Your task to perform on an android device: Go to internet settings Image 0: 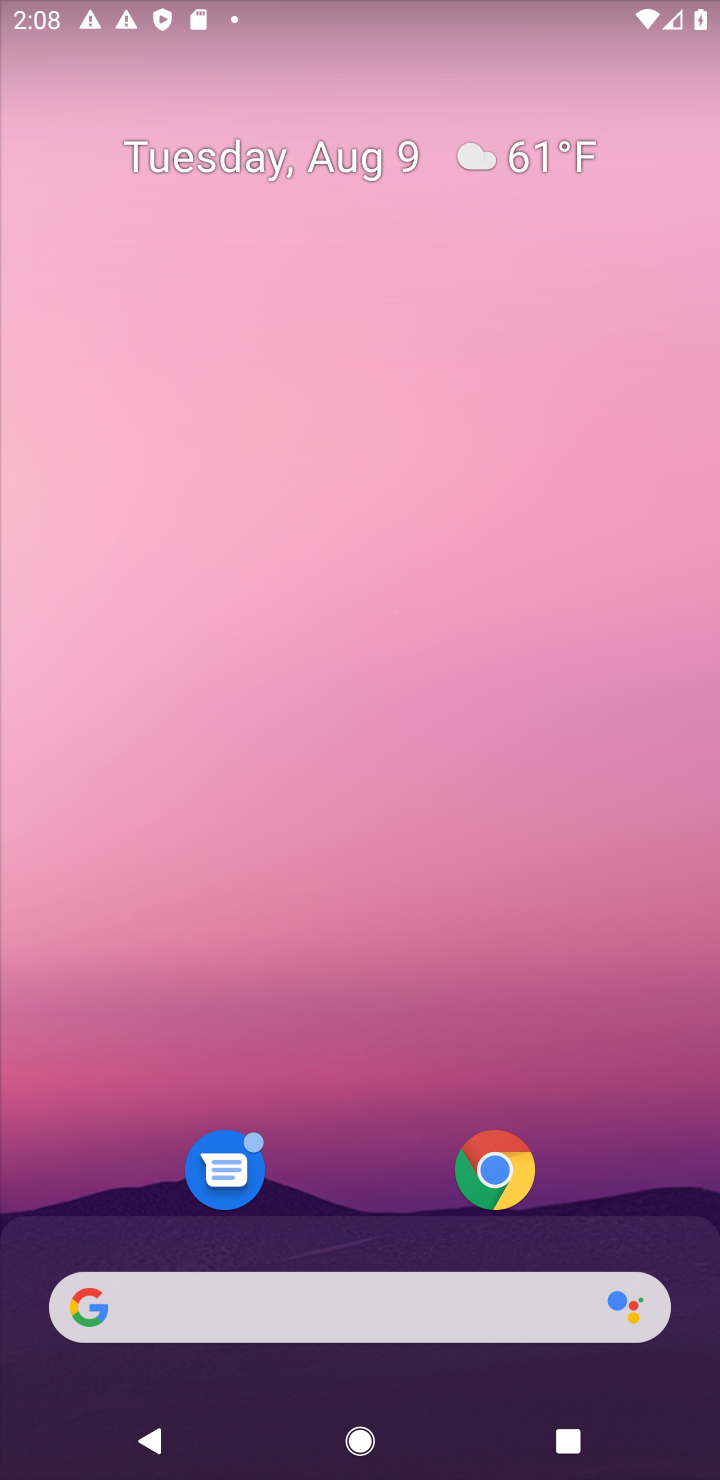
Step 0: drag from (387, 1082) to (485, 134)
Your task to perform on an android device: Go to internet settings Image 1: 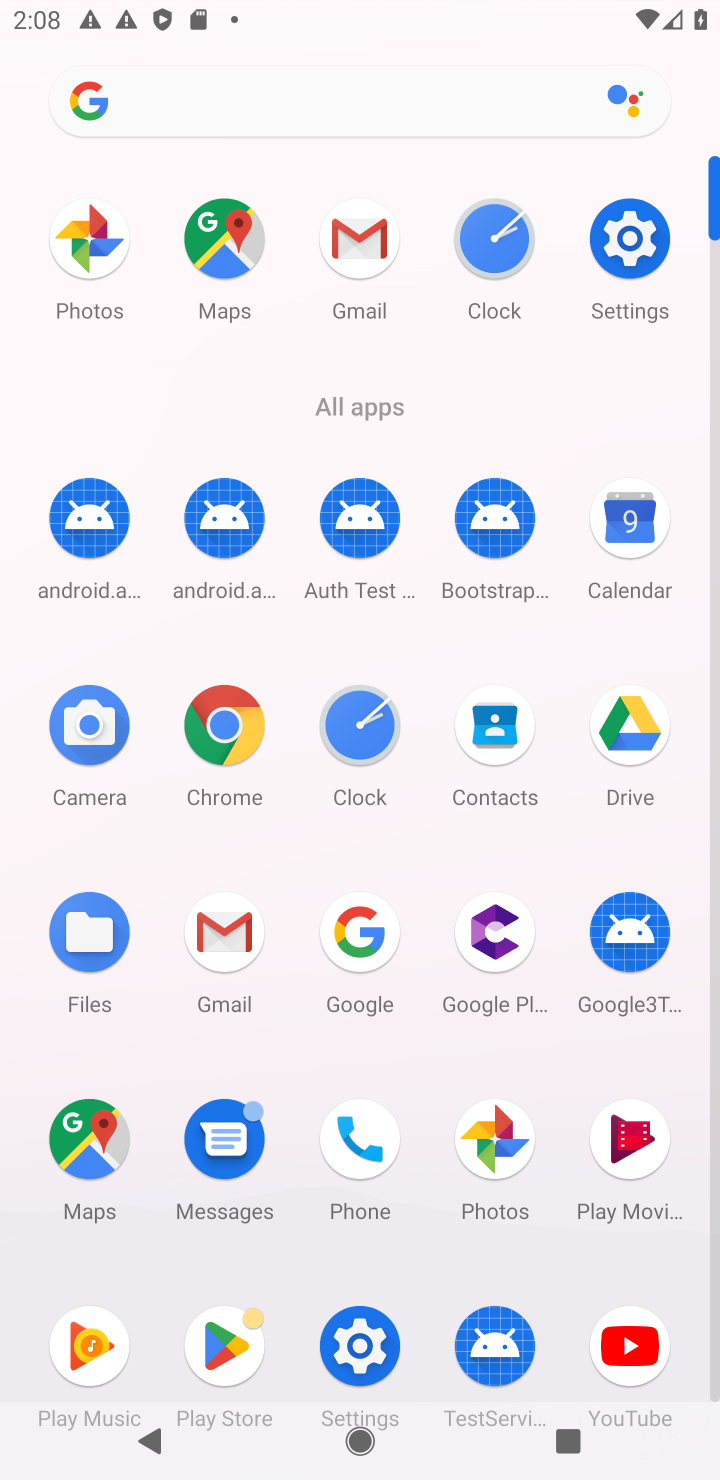
Step 1: click (371, 1334)
Your task to perform on an android device: Go to internet settings Image 2: 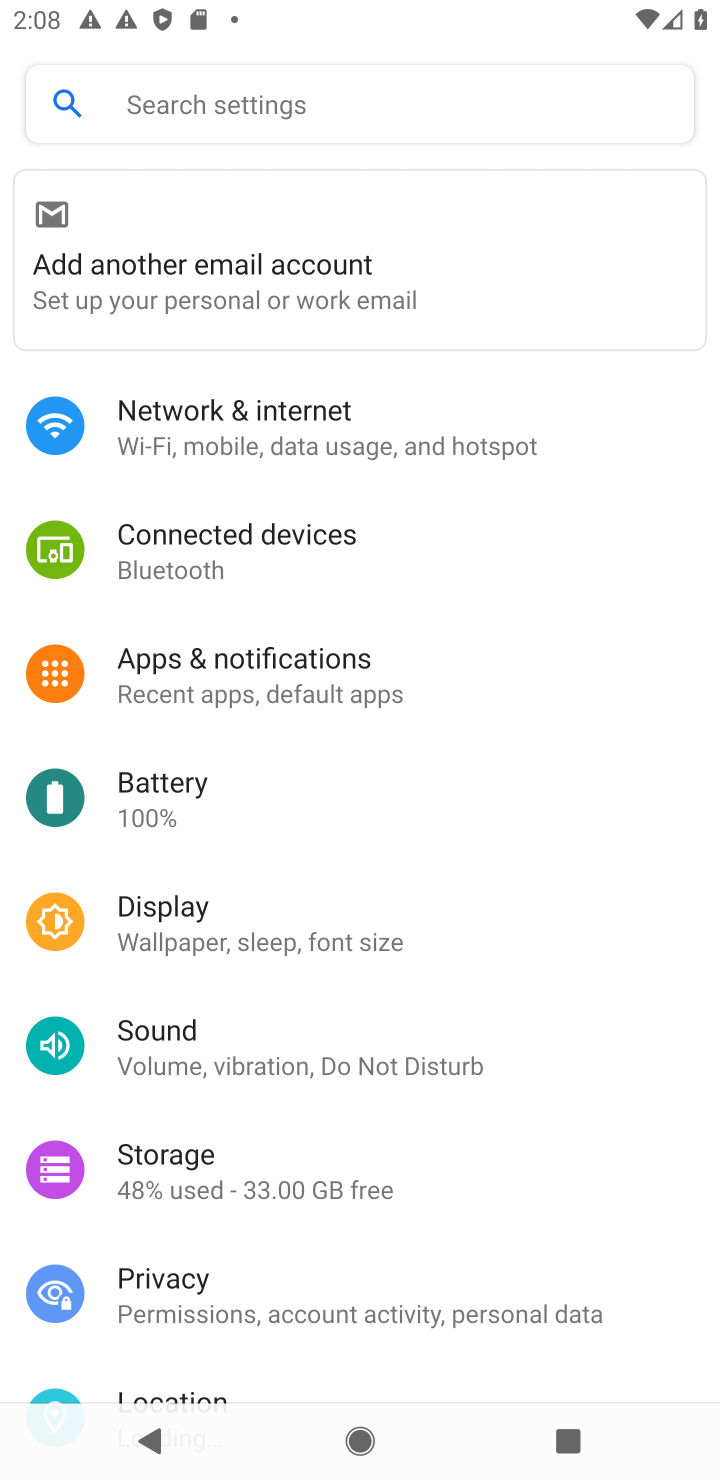
Step 2: click (338, 435)
Your task to perform on an android device: Go to internet settings Image 3: 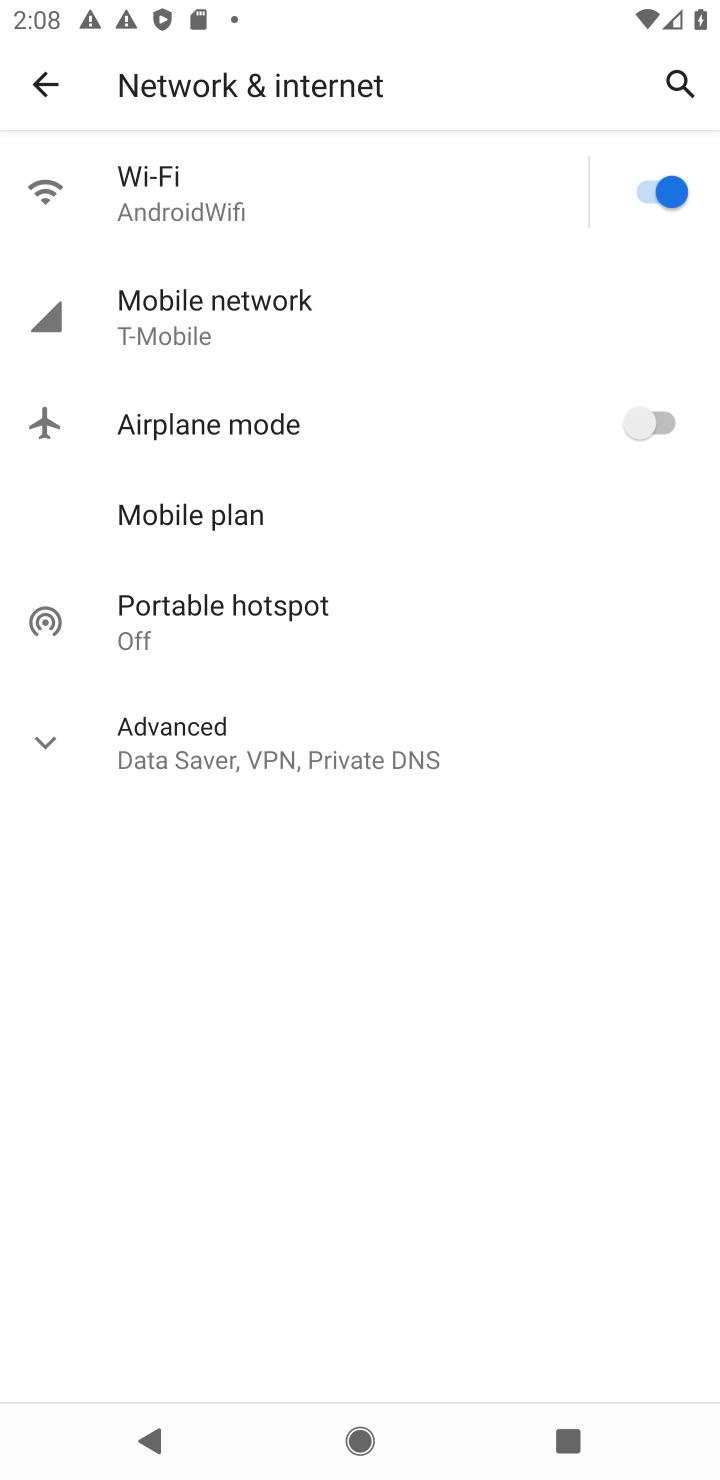
Step 3: task complete